Your task to perform on an android device: turn on improve location accuracy Image 0: 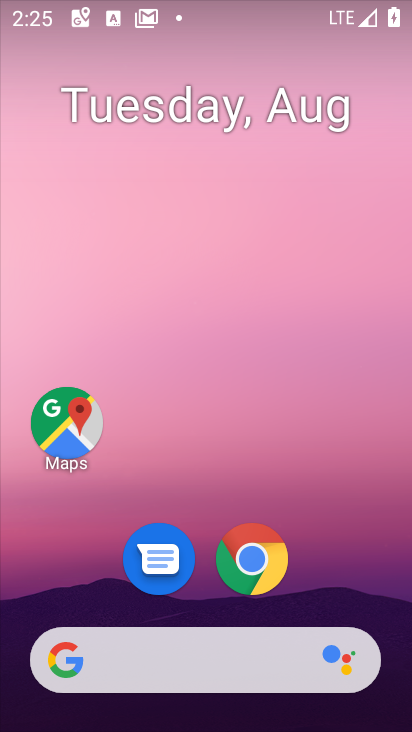
Step 0: drag from (183, 483) to (190, 97)
Your task to perform on an android device: turn on improve location accuracy Image 1: 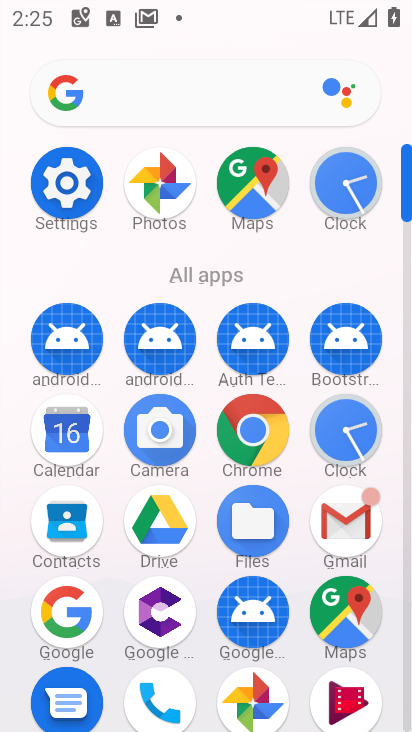
Step 1: click (64, 184)
Your task to perform on an android device: turn on improve location accuracy Image 2: 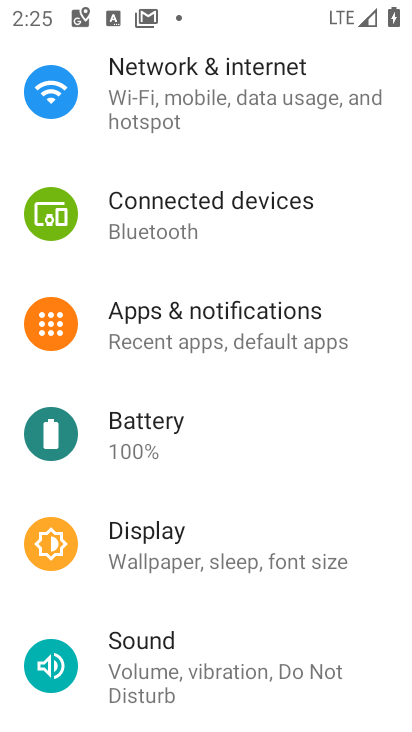
Step 2: drag from (216, 615) to (218, 266)
Your task to perform on an android device: turn on improve location accuracy Image 3: 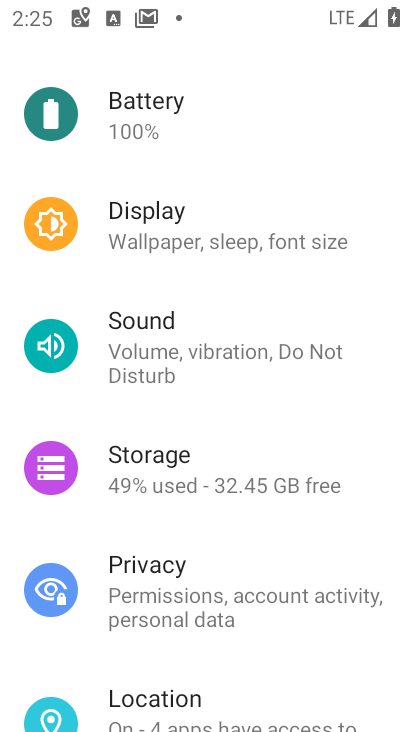
Step 3: click (177, 673)
Your task to perform on an android device: turn on improve location accuracy Image 4: 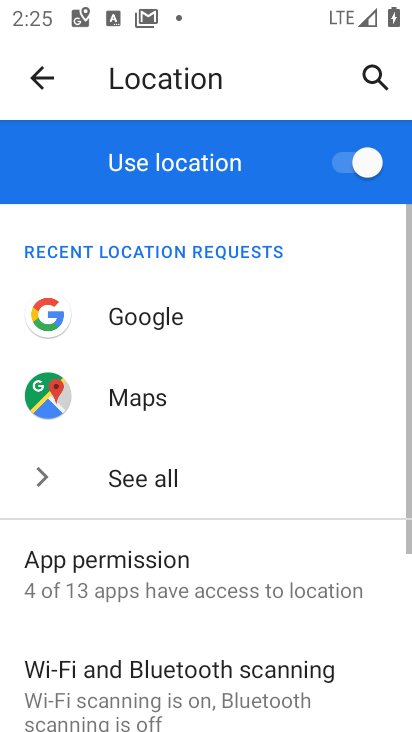
Step 4: drag from (138, 642) to (138, 373)
Your task to perform on an android device: turn on improve location accuracy Image 5: 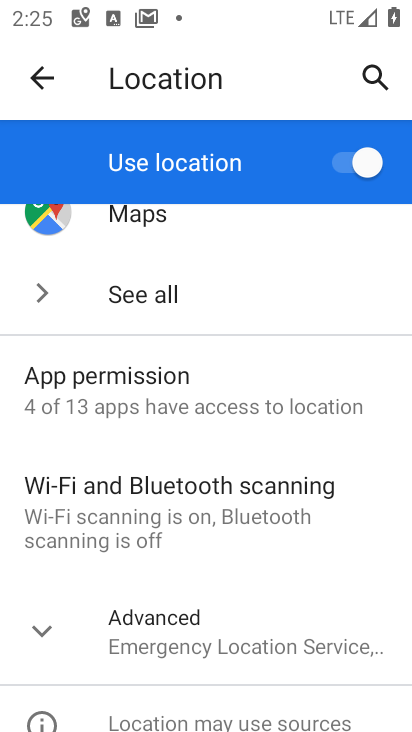
Step 5: click (138, 627)
Your task to perform on an android device: turn on improve location accuracy Image 6: 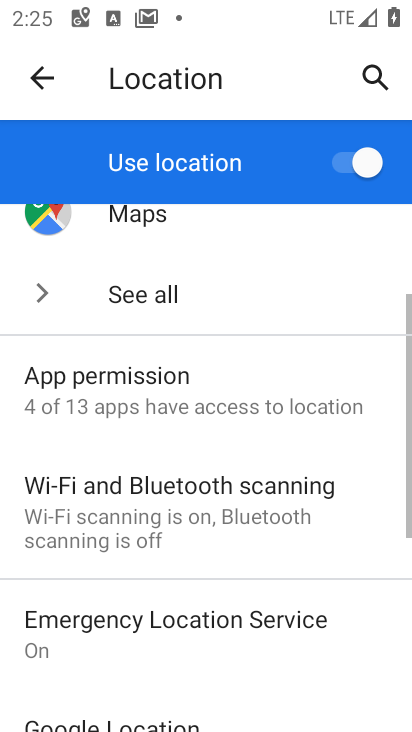
Step 6: drag from (138, 627) to (152, 402)
Your task to perform on an android device: turn on improve location accuracy Image 7: 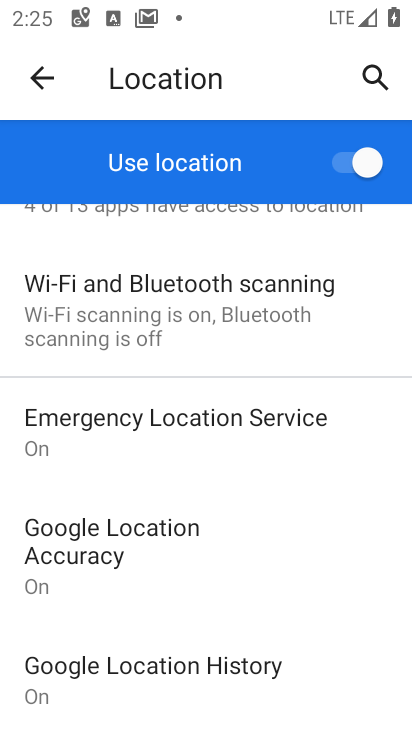
Step 7: drag from (142, 578) to (144, 314)
Your task to perform on an android device: turn on improve location accuracy Image 8: 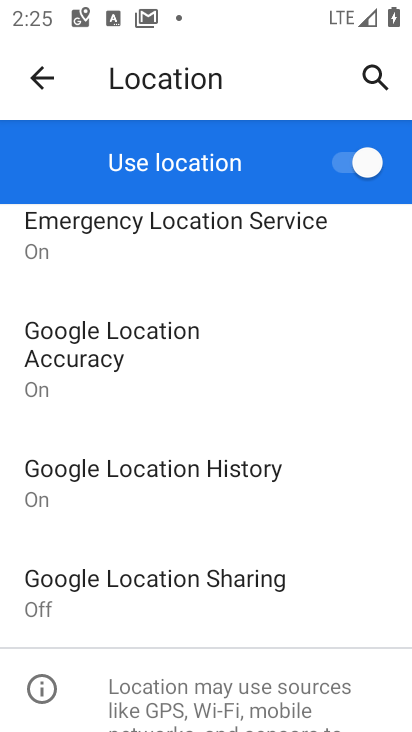
Step 8: click (153, 334)
Your task to perform on an android device: turn on improve location accuracy Image 9: 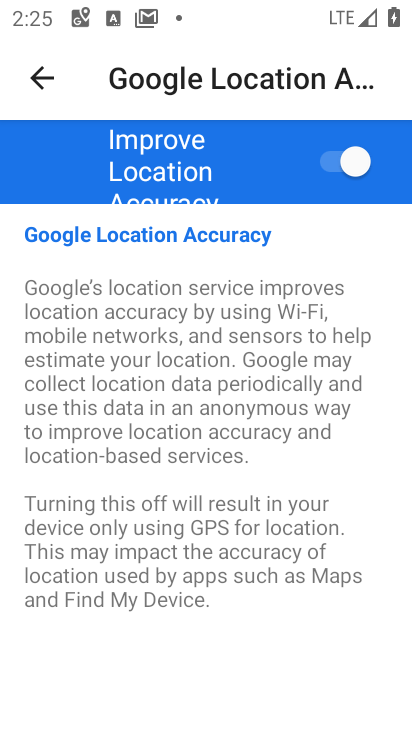
Step 9: task complete